Your task to perform on an android device: What's the weather today? Image 0: 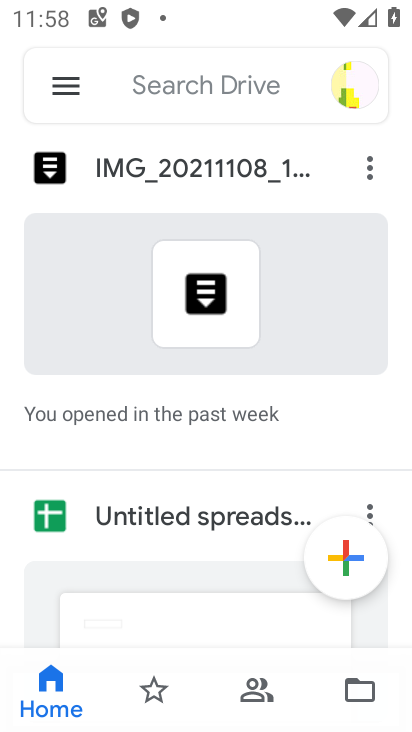
Step 0: press home button
Your task to perform on an android device: What's the weather today? Image 1: 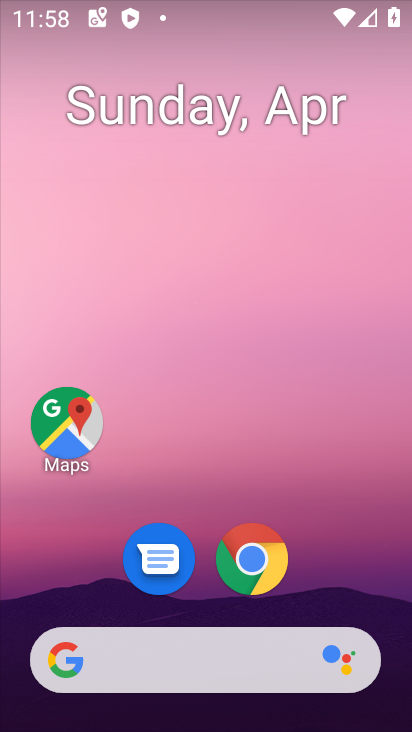
Step 1: drag from (369, 556) to (337, 47)
Your task to perform on an android device: What's the weather today? Image 2: 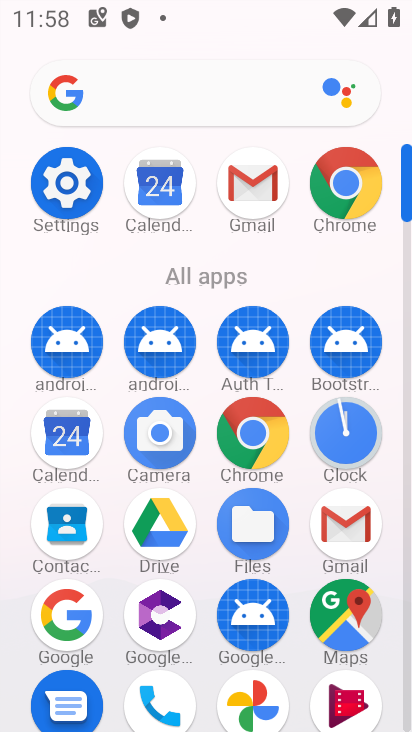
Step 2: click (147, 95)
Your task to perform on an android device: What's the weather today? Image 3: 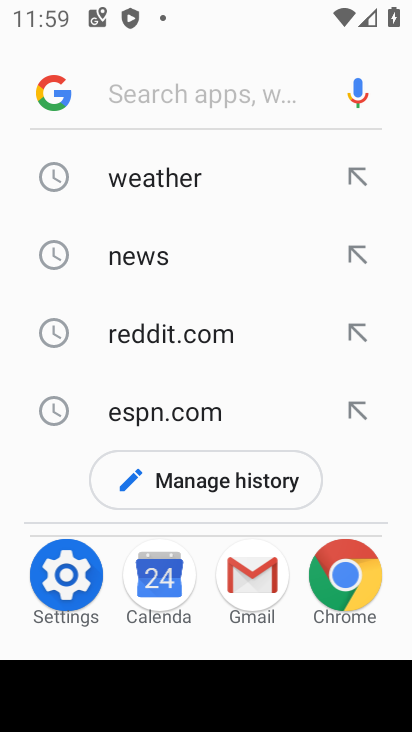
Step 3: click (171, 183)
Your task to perform on an android device: What's the weather today? Image 4: 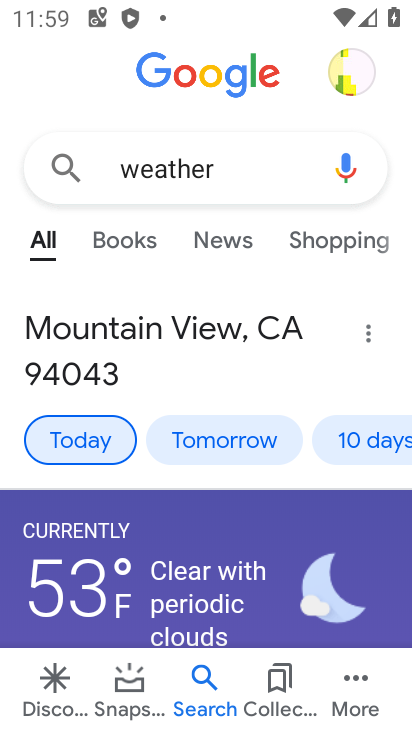
Step 4: task complete